Your task to perform on an android device: set default search engine in the chrome app Image 0: 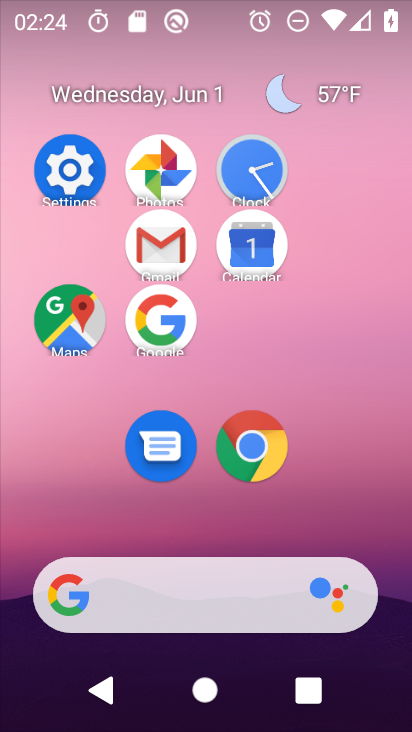
Step 0: click (264, 437)
Your task to perform on an android device: set default search engine in the chrome app Image 1: 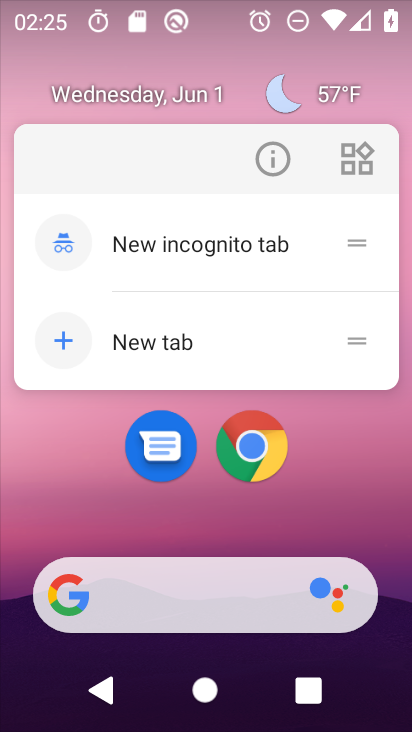
Step 1: click (286, 437)
Your task to perform on an android device: set default search engine in the chrome app Image 2: 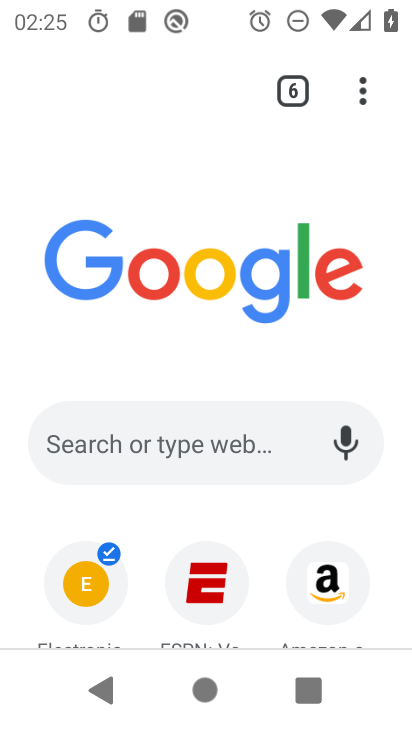
Step 2: click (369, 99)
Your task to perform on an android device: set default search engine in the chrome app Image 3: 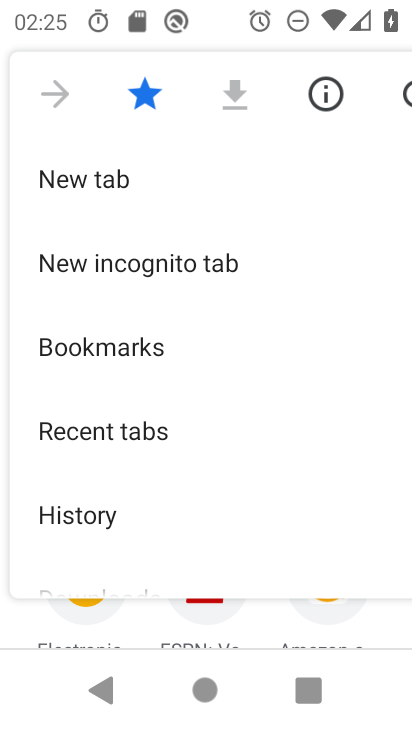
Step 3: drag from (202, 491) to (268, 111)
Your task to perform on an android device: set default search engine in the chrome app Image 4: 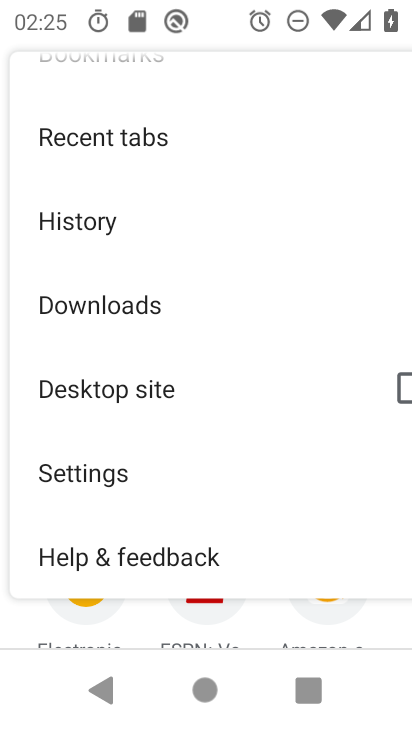
Step 4: click (198, 498)
Your task to perform on an android device: set default search engine in the chrome app Image 5: 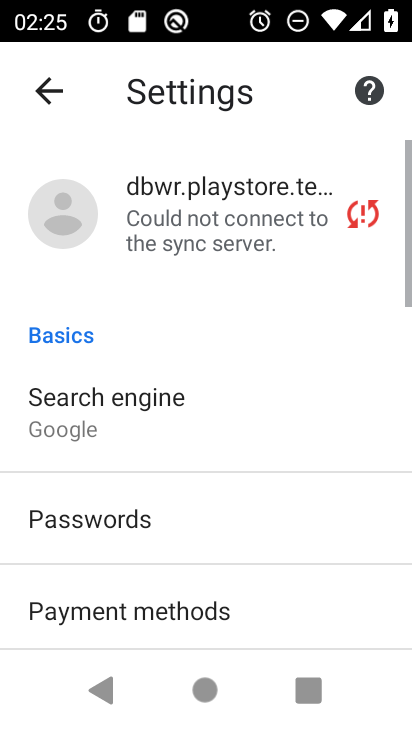
Step 5: click (189, 440)
Your task to perform on an android device: set default search engine in the chrome app Image 6: 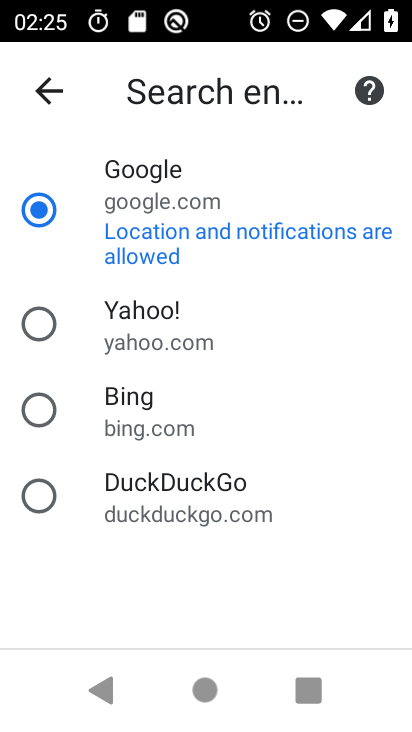
Step 6: task complete